Your task to perform on an android device: When is my next meeting? Image 0: 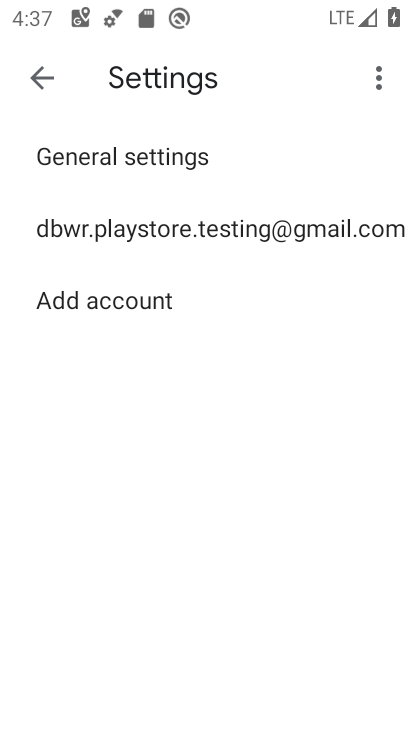
Step 0: press home button
Your task to perform on an android device: When is my next meeting? Image 1: 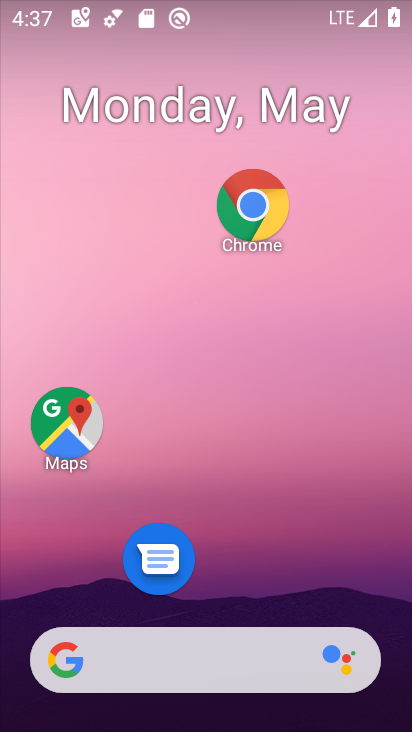
Step 1: drag from (247, 584) to (260, 101)
Your task to perform on an android device: When is my next meeting? Image 2: 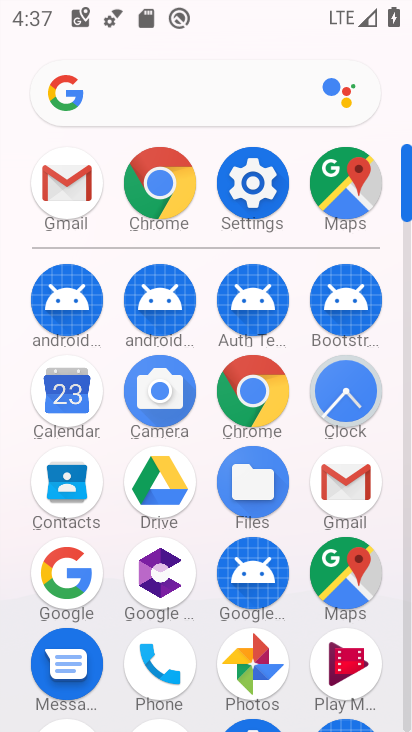
Step 2: click (60, 432)
Your task to perform on an android device: When is my next meeting? Image 3: 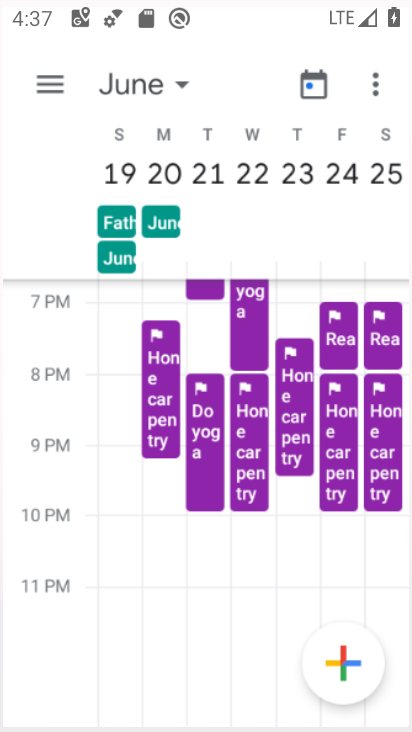
Step 3: click (75, 402)
Your task to perform on an android device: When is my next meeting? Image 4: 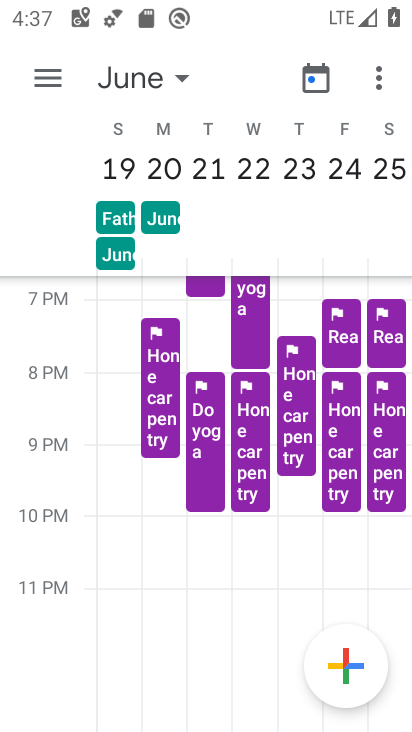
Step 4: click (57, 78)
Your task to perform on an android device: When is my next meeting? Image 5: 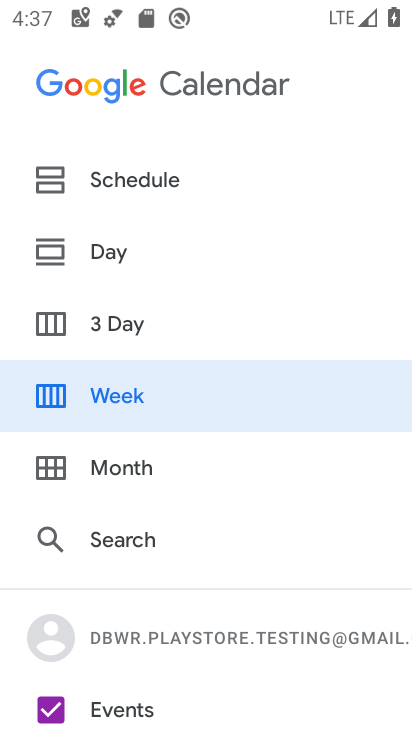
Step 5: click (101, 179)
Your task to perform on an android device: When is my next meeting? Image 6: 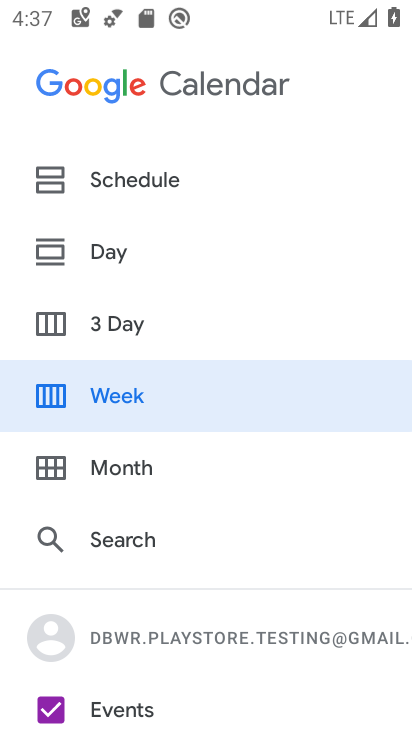
Step 6: click (177, 189)
Your task to perform on an android device: When is my next meeting? Image 7: 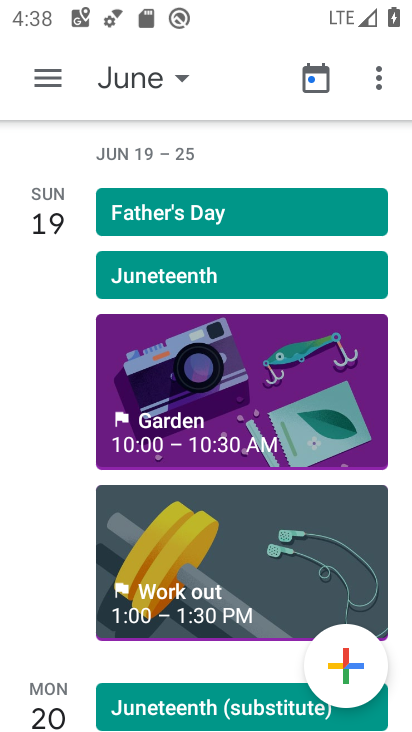
Step 7: click (144, 85)
Your task to perform on an android device: When is my next meeting? Image 8: 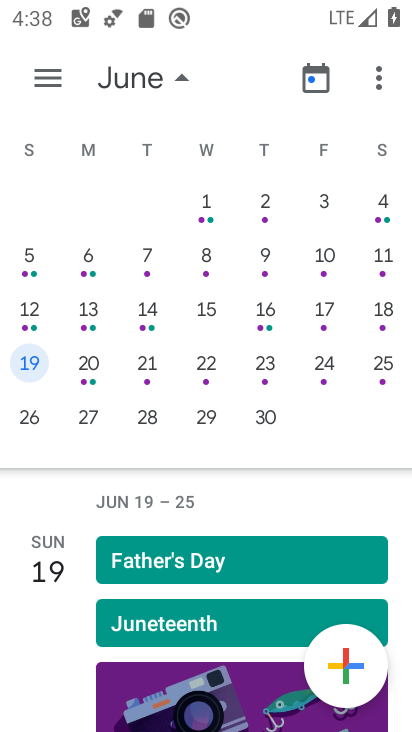
Step 8: click (116, 85)
Your task to perform on an android device: When is my next meeting? Image 9: 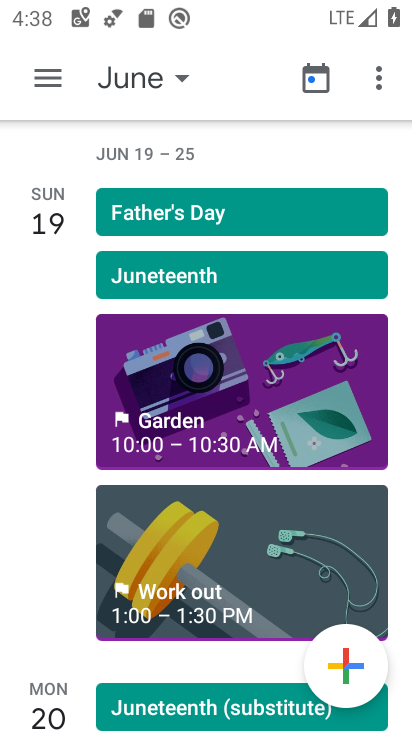
Step 9: click (130, 86)
Your task to perform on an android device: When is my next meeting? Image 10: 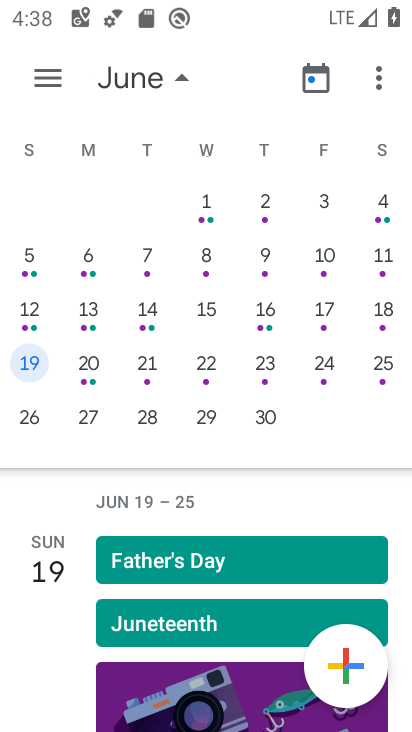
Step 10: drag from (80, 296) to (343, 316)
Your task to perform on an android device: When is my next meeting? Image 11: 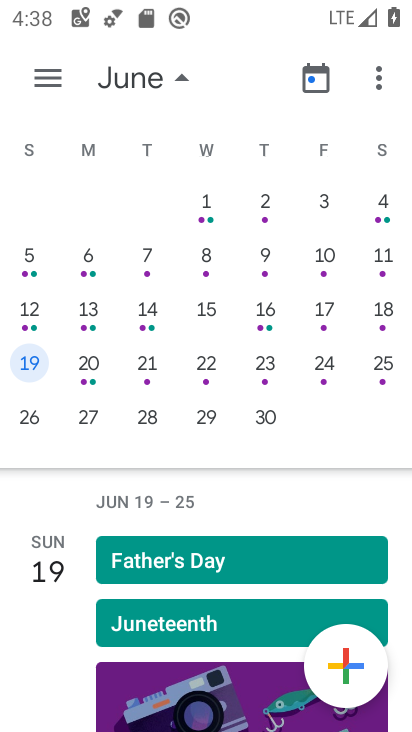
Step 11: drag from (191, 339) to (356, 368)
Your task to perform on an android device: When is my next meeting? Image 12: 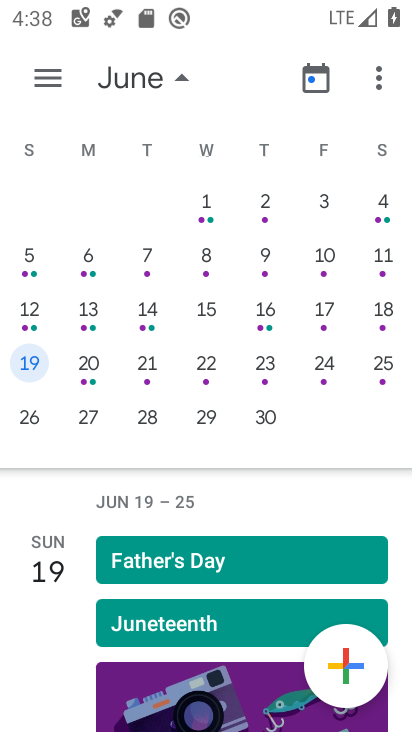
Step 12: drag from (91, 297) to (411, 270)
Your task to perform on an android device: When is my next meeting? Image 13: 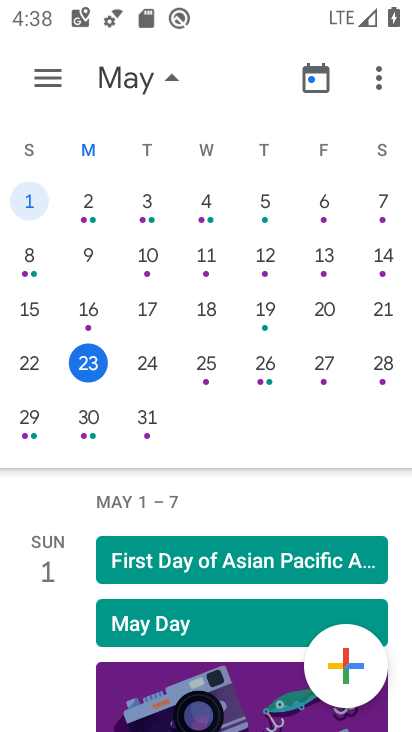
Step 13: click (92, 369)
Your task to perform on an android device: When is my next meeting? Image 14: 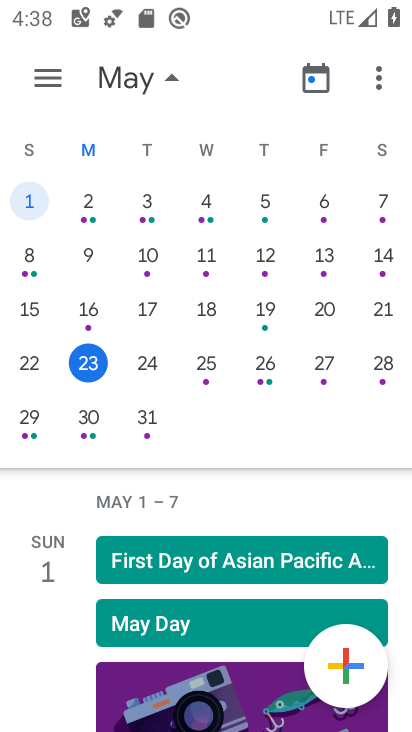
Step 14: click (145, 368)
Your task to perform on an android device: When is my next meeting? Image 15: 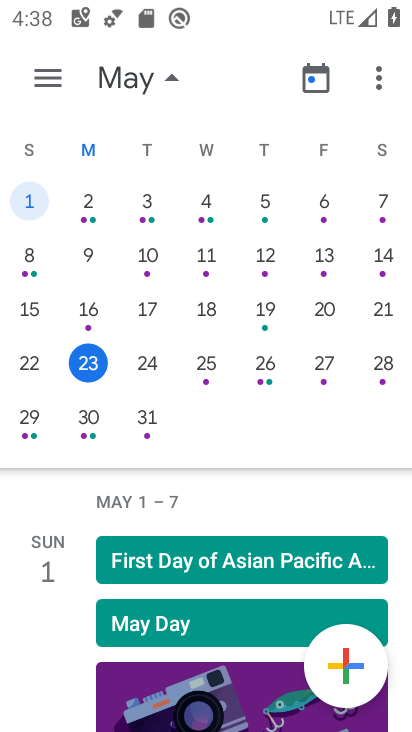
Step 15: click (137, 366)
Your task to perform on an android device: When is my next meeting? Image 16: 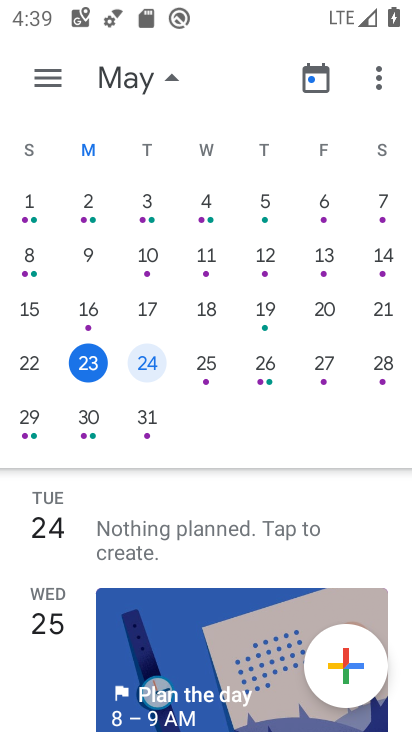
Step 16: click (129, 88)
Your task to perform on an android device: When is my next meeting? Image 17: 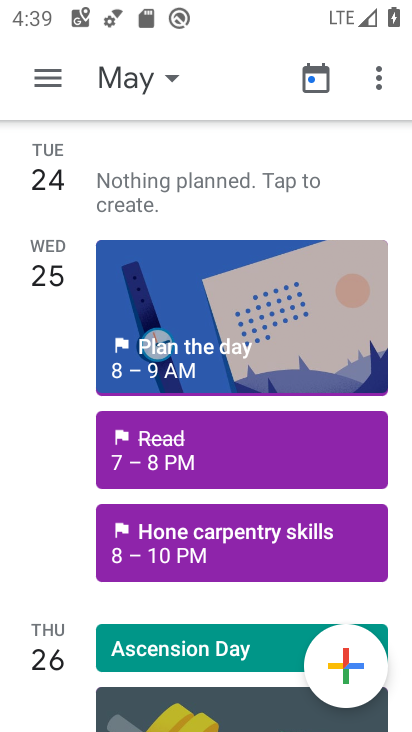
Step 17: drag from (136, 540) to (153, 265)
Your task to perform on an android device: When is my next meeting? Image 18: 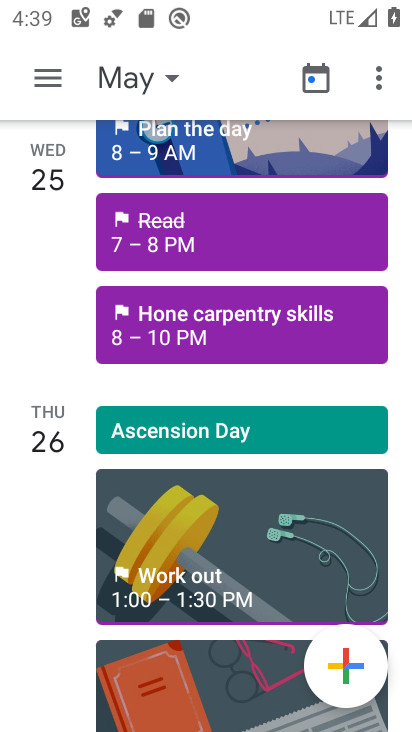
Step 18: click (203, 165)
Your task to perform on an android device: When is my next meeting? Image 19: 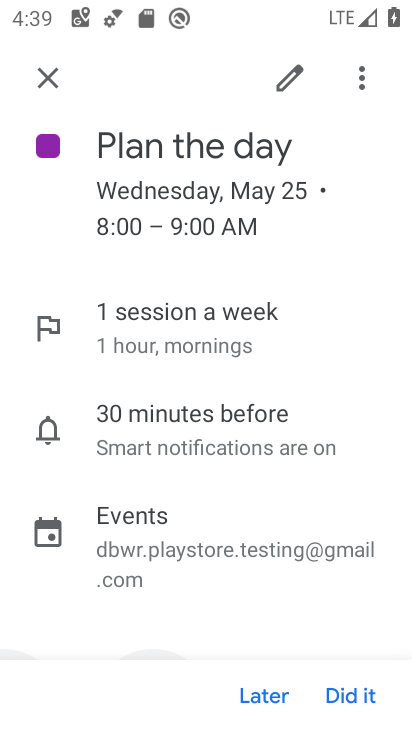
Step 19: click (40, 74)
Your task to perform on an android device: When is my next meeting? Image 20: 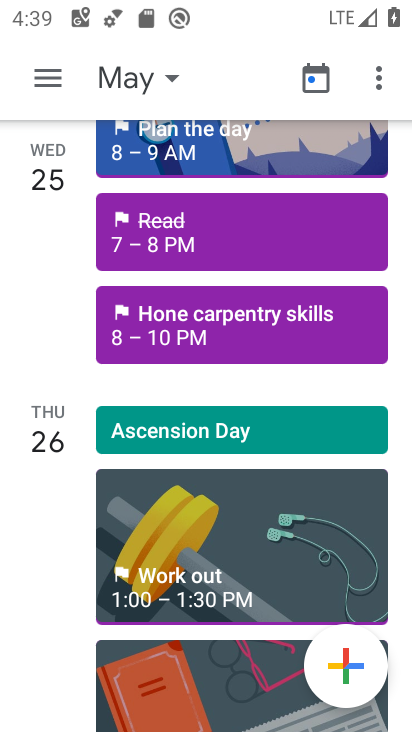
Step 20: task complete